Your task to perform on an android device: Go to sound settings Image 0: 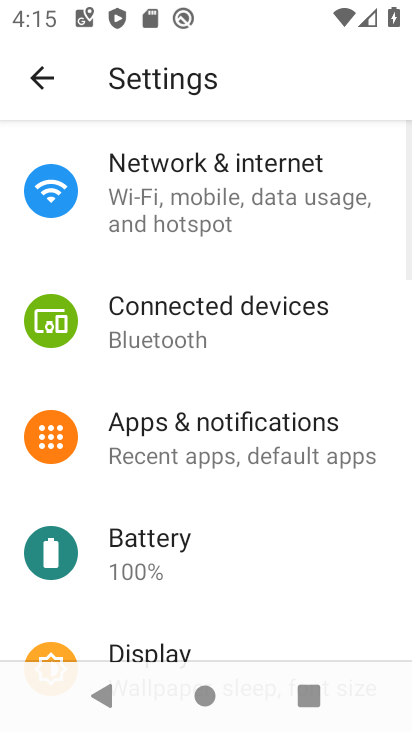
Step 0: press home button
Your task to perform on an android device: Go to sound settings Image 1: 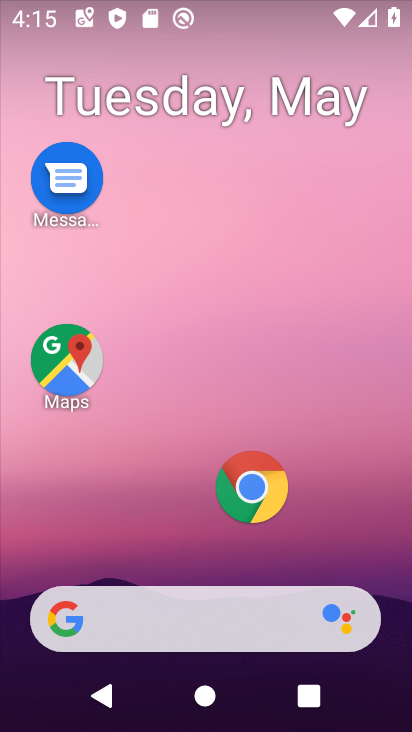
Step 1: drag from (230, 537) to (177, 154)
Your task to perform on an android device: Go to sound settings Image 2: 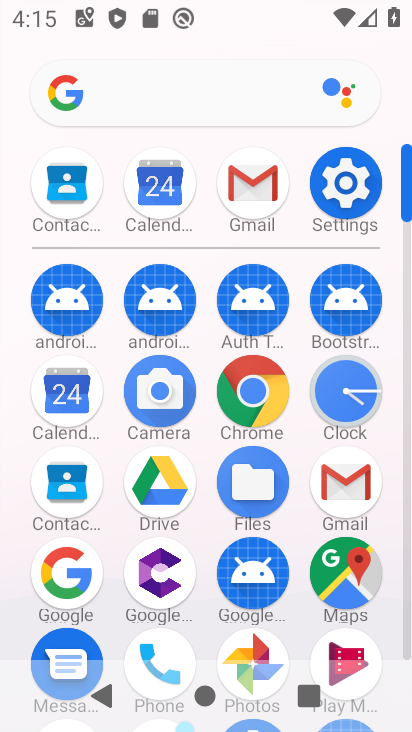
Step 2: click (346, 189)
Your task to perform on an android device: Go to sound settings Image 3: 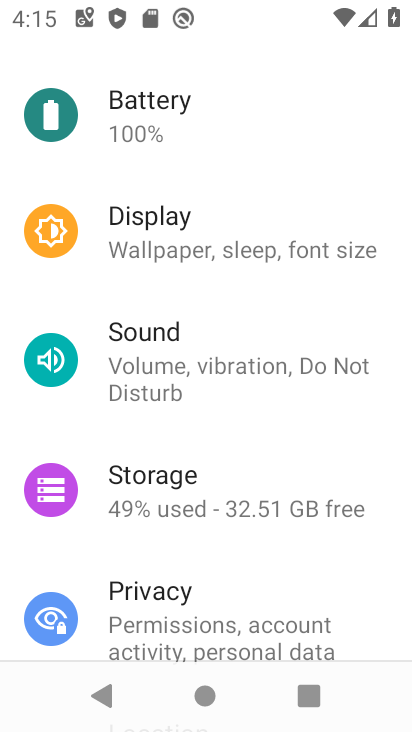
Step 3: click (191, 384)
Your task to perform on an android device: Go to sound settings Image 4: 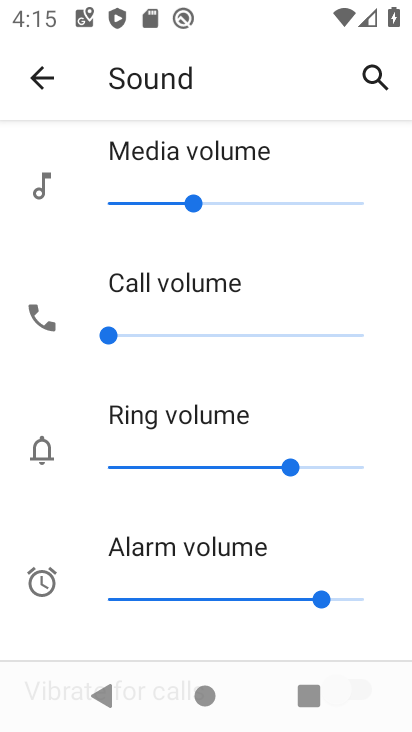
Step 4: task complete